Your task to perform on an android device: Open Youtube and go to "Your channel" Image 0: 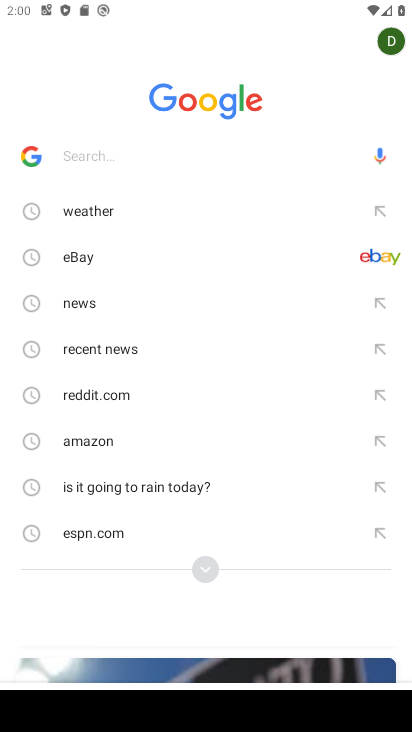
Step 0: press home button
Your task to perform on an android device: Open Youtube and go to "Your channel" Image 1: 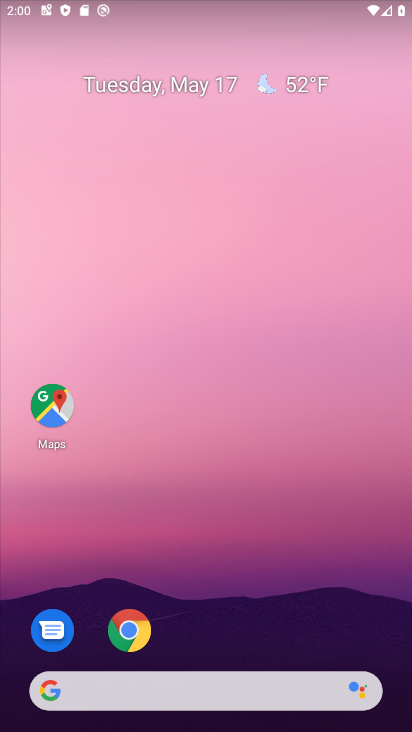
Step 1: drag from (177, 604) to (302, 17)
Your task to perform on an android device: Open Youtube and go to "Your channel" Image 2: 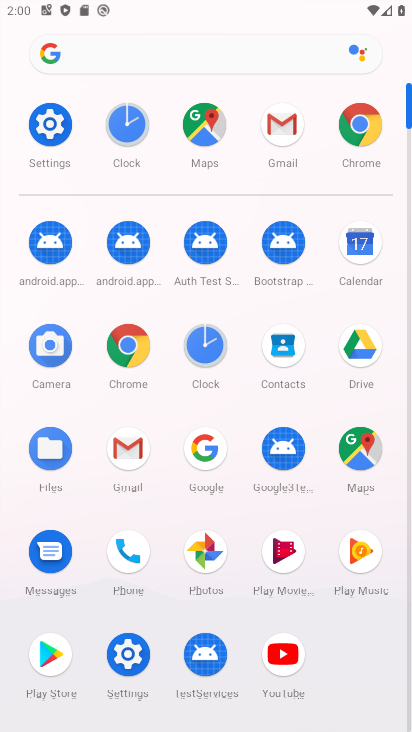
Step 2: drag from (275, 676) to (349, 676)
Your task to perform on an android device: Open Youtube and go to "Your channel" Image 3: 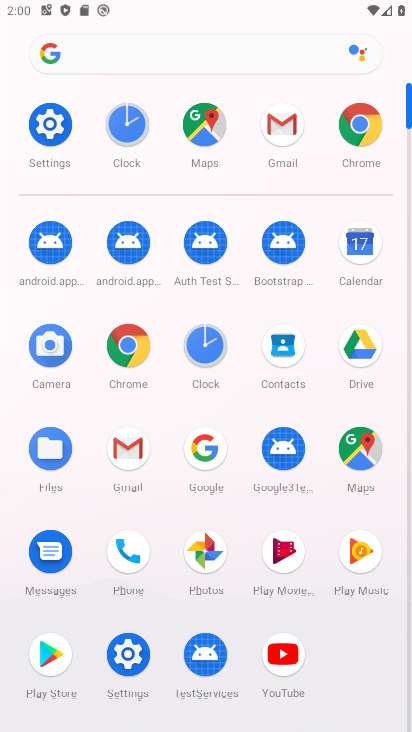
Step 3: click (287, 672)
Your task to perform on an android device: Open Youtube and go to "Your channel" Image 4: 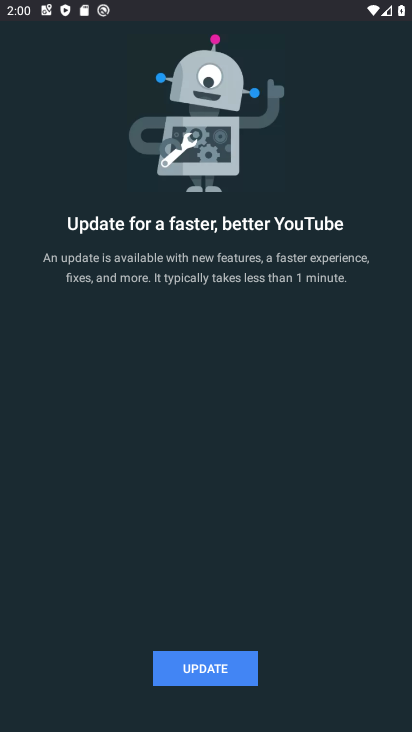
Step 4: click (203, 679)
Your task to perform on an android device: Open Youtube and go to "Your channel" Image 5: 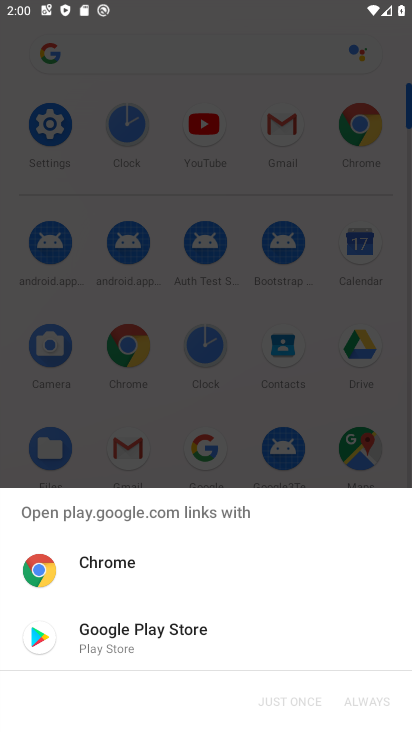
Step 5: click (146, 631)
Your task to perform on an android device: Open Youtube and go to "Your channel" Image 6: 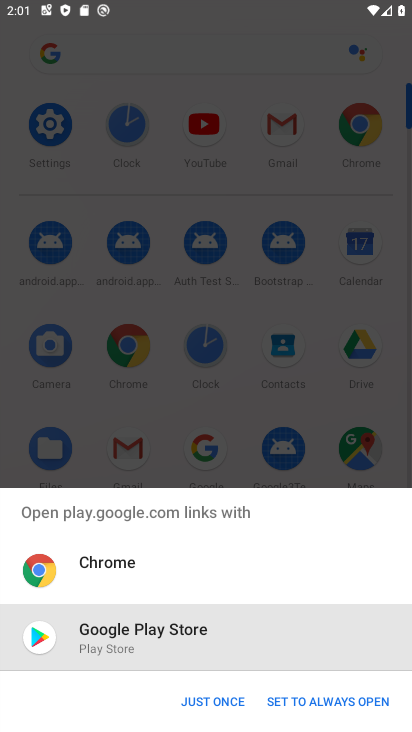
Step 6: click (144, 632)
Your task to perform on an android device: Open Youtube and go to "Your channel" Image 7: 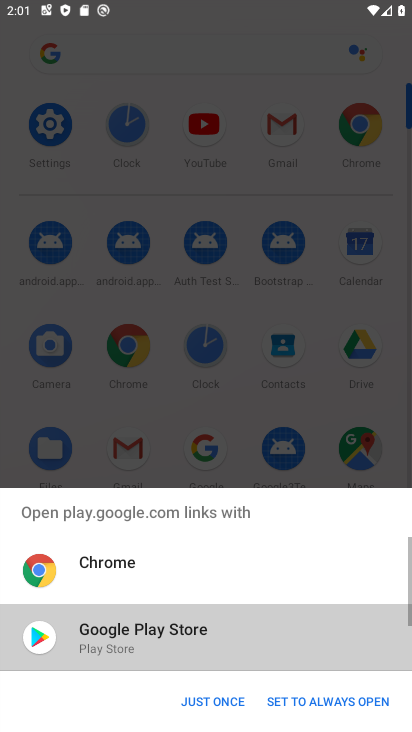
Step 7: click (226, 698)
Your task to perform on an android device: Open Youtube and go to "Your channel" Image 8: 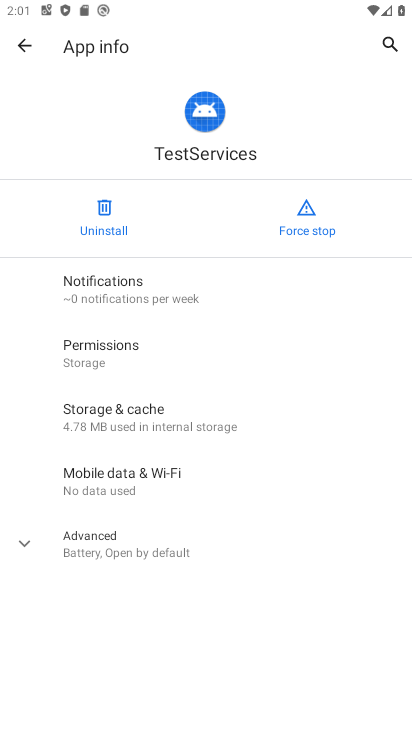
Step 8: press back button
Your task to perform on an android device: Open Youtube and go to "Your channel" Image 9: 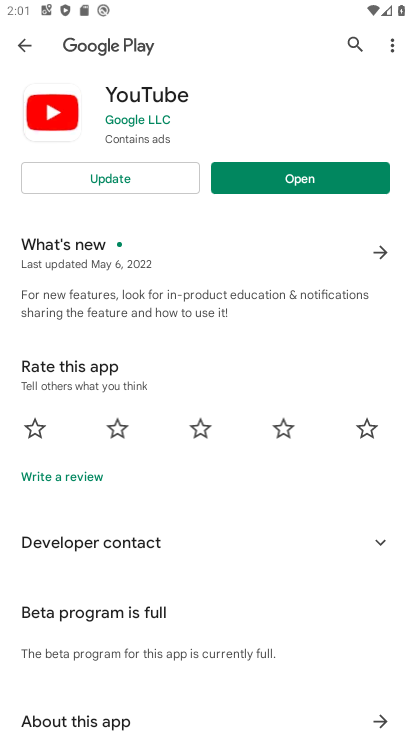
Step 9: click (112, 177)
Your task to perform on an android device: Open Youtube and go to "Your channel" Image 10: 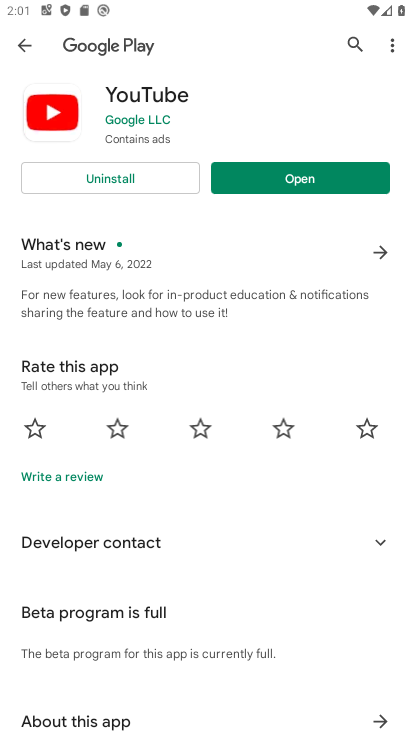
Step 10: click (284, 189)
Your task to perform on an android device: Open Youtube and go to "Your channel" Image 11: 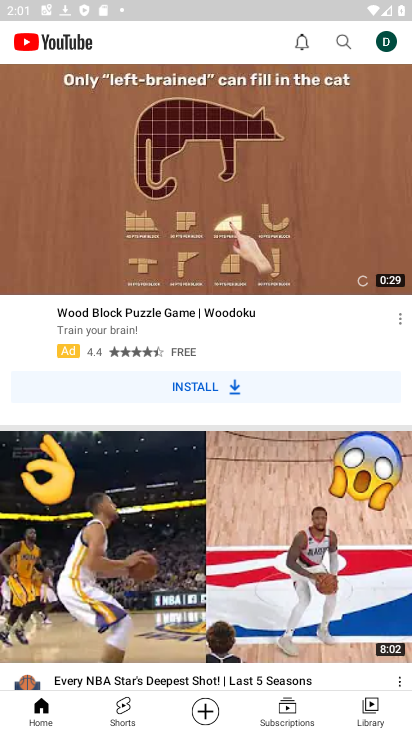
Step 11: click (388, 38)
Your task to perform on an android device: Open Youtube and go to "Your channel" Image 12: 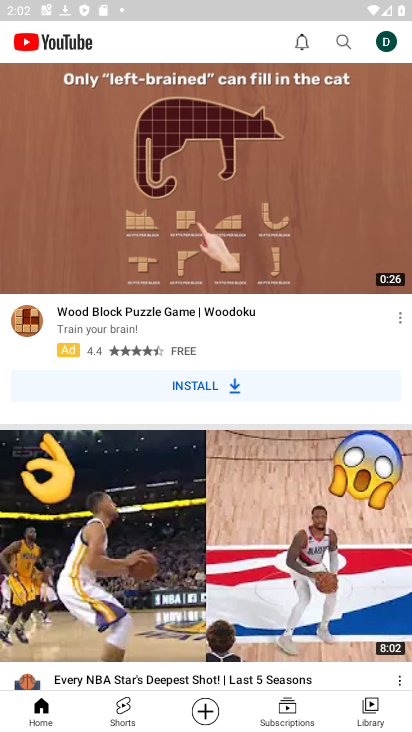
Step 12: click (391, 39)
Your task to perform on an android device: Open Youtube and go to "Your channel" Image 13: 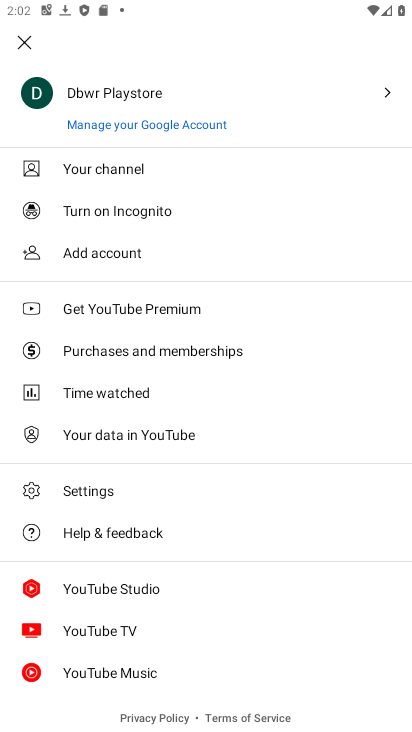
Step 13: click (123, 158)
Your task to perform on an android device: Open Youtube and go to "Your channel" Image 14: 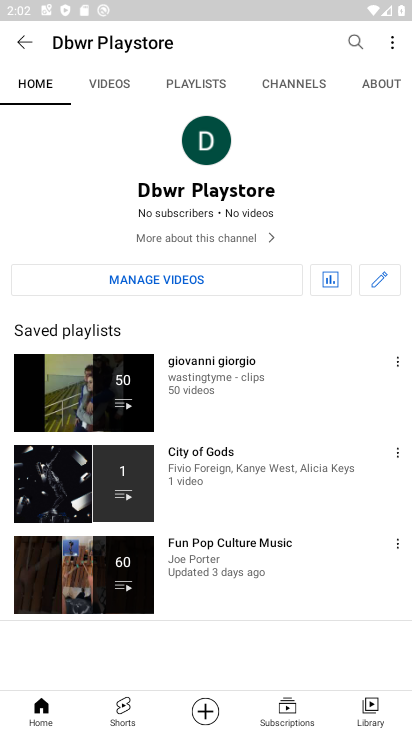
Step 14: task complete